Your task to perform on an android device: turn off smart reply in the gmail app Image 0: 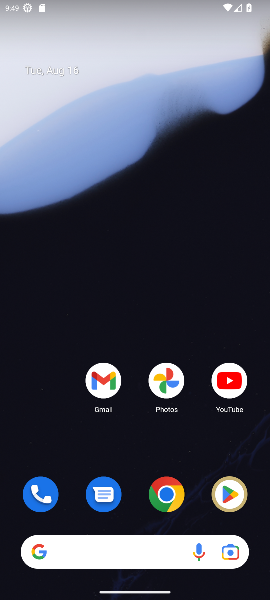
Step 0: drag from (142, 517) to (146, 108)
Your task to perform on an android device: turn off smart reply in the gmail app Image 1: 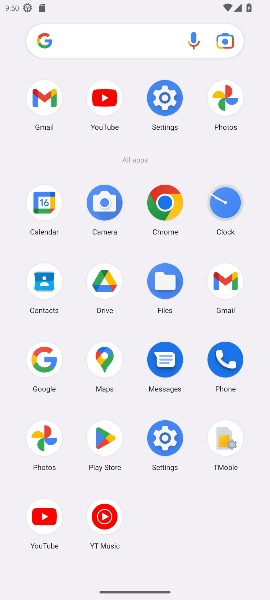
Step 1: click (231, 282)
Your task to perform on an android device: turn off smart reply in the gmail app Image 2: 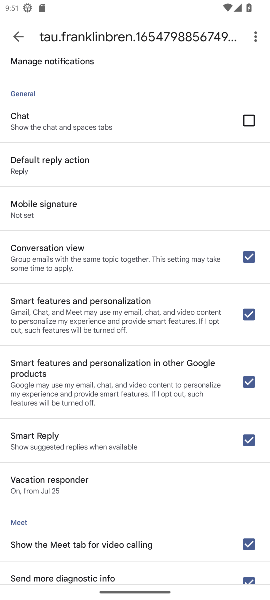
Step 2: click (243, 440)
Your task to perform on an android device: turn off smart reply in the gmail app Image 3: 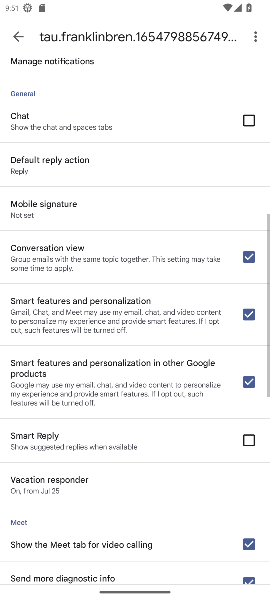
Step 3: task complete